Your task to perform on an android device: set default search engine in the chrome app Image 0: 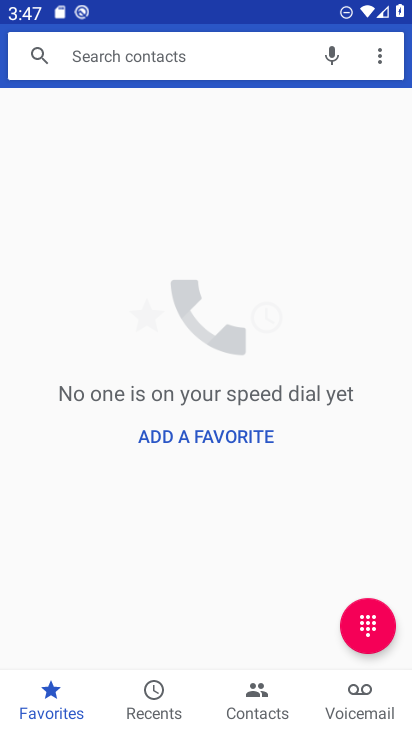
Step 0: press home button
Your task to perform on an android device: set default search engine in the chrome app Image 1: 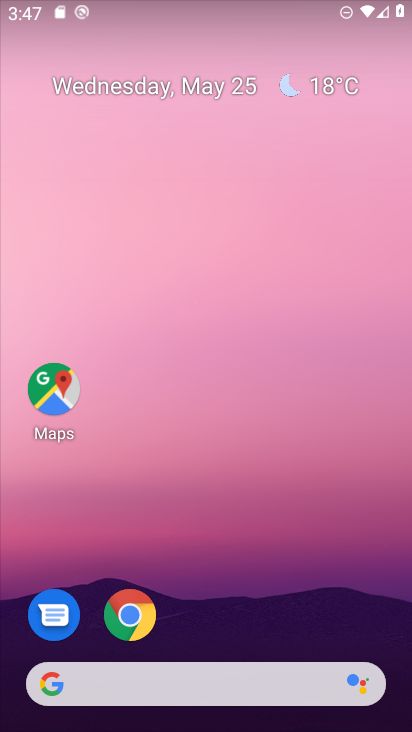
Step 1: click (134, 607)
Your task to perform on an android device: set default search engine in the chrome app Image 2: 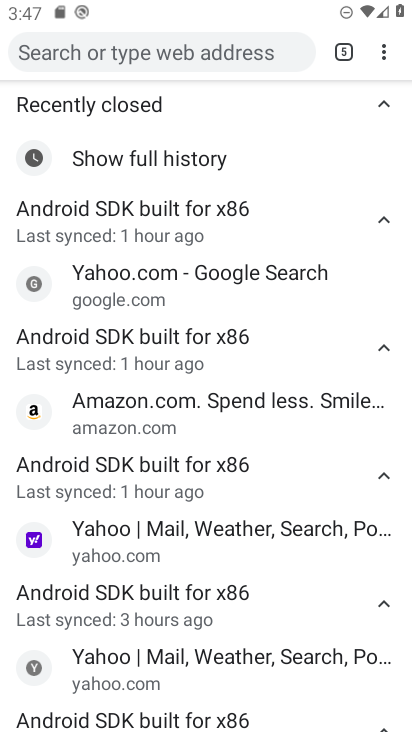
Step 2: click (381, 53)
Your task to perform on an android device: set default search engine in the chrome app Image 3: 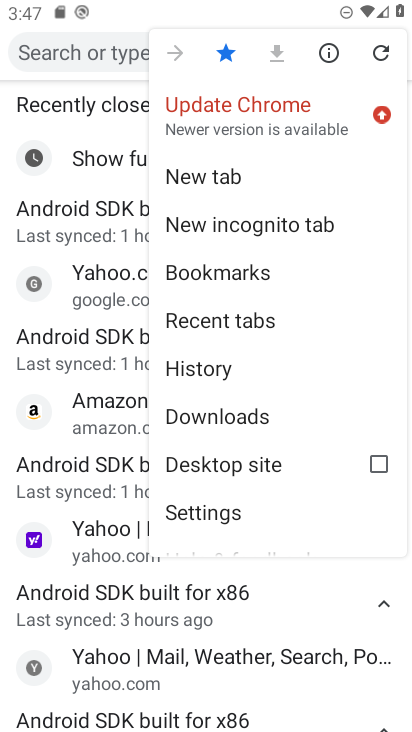
Step 3: click (244, 510)
Your task to perform on an android device: set default search engine in the chrome app Image 4: 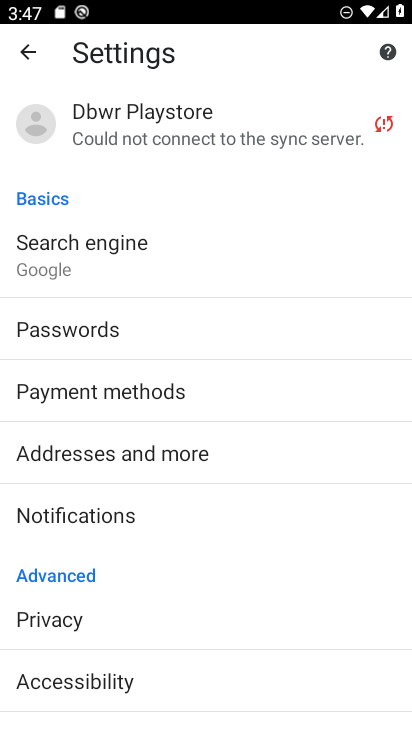
Step 4: click (121, 257)
Your task to perform on an android device: set default search engine in the chrome app Image 5: 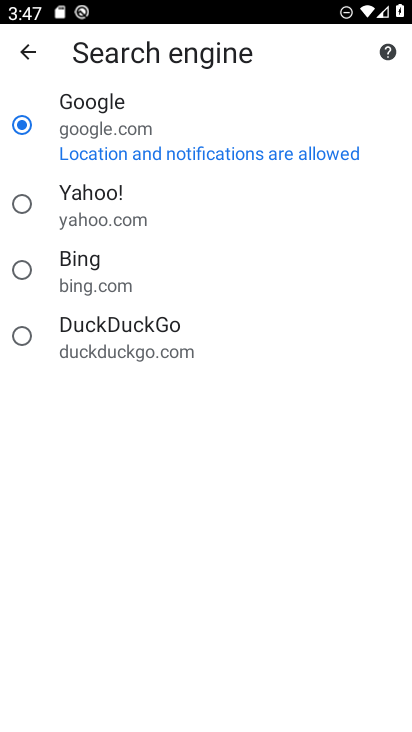
Step 5: task complete